Your task to perform on an android device: Open the calendar app, open the side menu, and click the "Day" option Image 0: 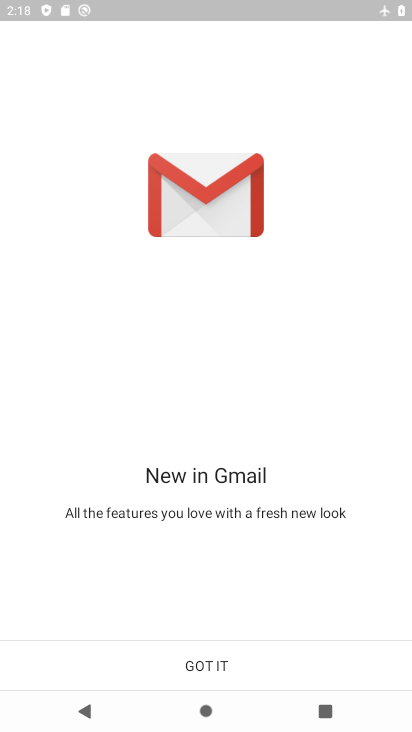
Step 0: press back button
Your task to perform on an android device: Open the calendar app, open the side menu, and click the "Day" option Image 1: 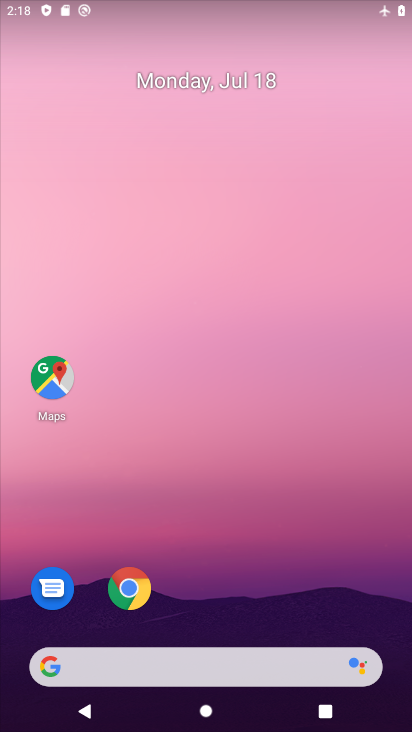
Step 1: drag from (217, 593) to (324, 11)
Your task to perform on an android device: Open the calendar app, open the side menu, and click the "Day" option Image 2: 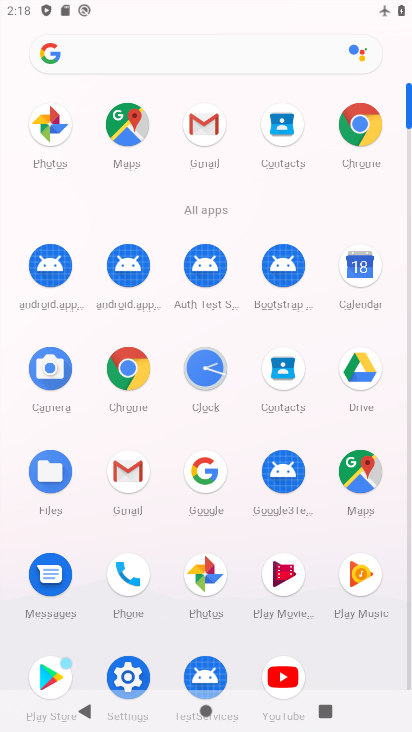
Step 2: click (365, 279)
Your task to perform on an android device: Open the calendar app, open the side menu, and click the "Day" option Image 3: 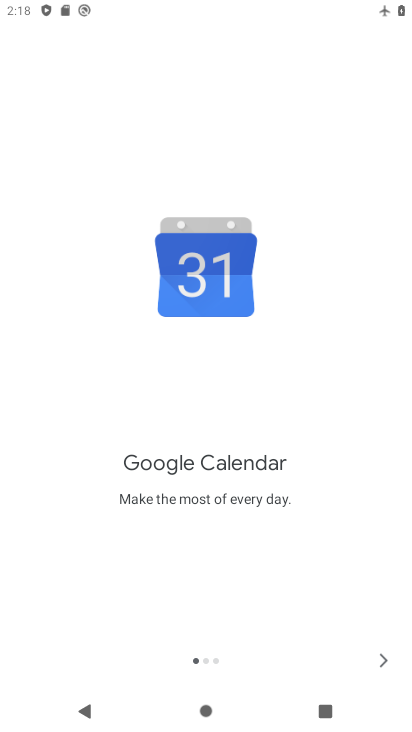
Step 3: click (377, 649)
Your task to perform on an android device: Open the calendar app, open the side menu, and click the "Day" option Image 4: 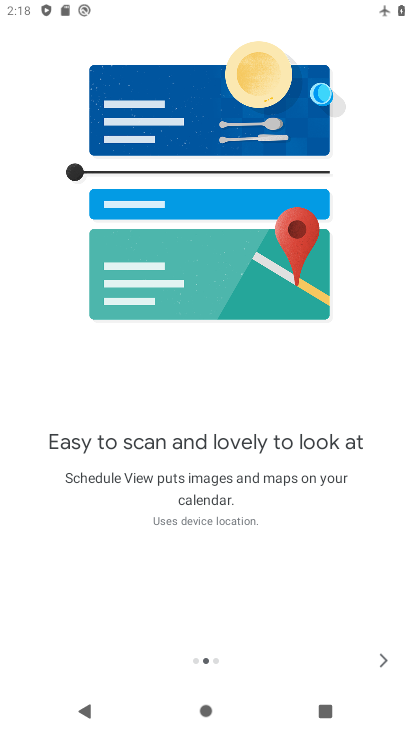
Step 4: click (377, 649)
Your task to perform on an android device: Open the calendar app, open the side menu, and click the "Day" option Image 5: 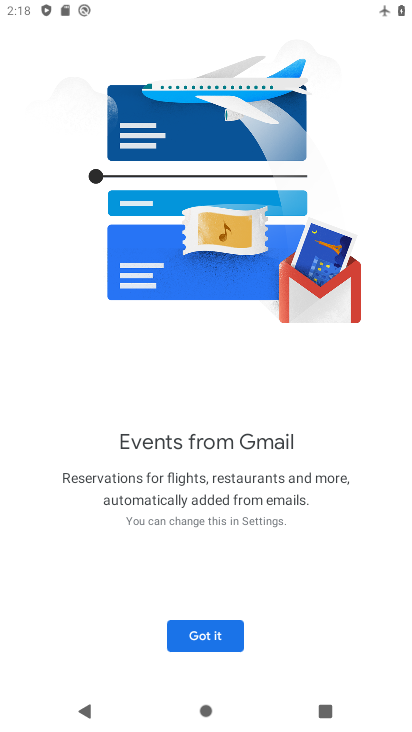
Step 5: click (195, 636)
Your task to perform on an android device: Open the calendar app, open the side menu, and click the "Day" option Image 6: 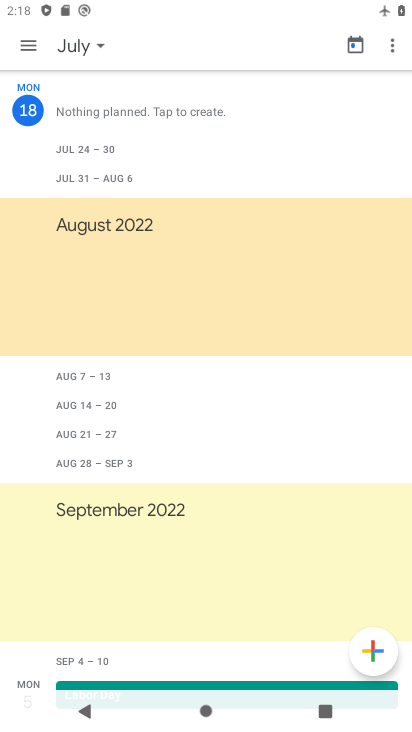
Step 6: click (27, 42)
Your task to perform on an android device: Open the calendar app, open the side menu, and click the "Day" option Image 7: 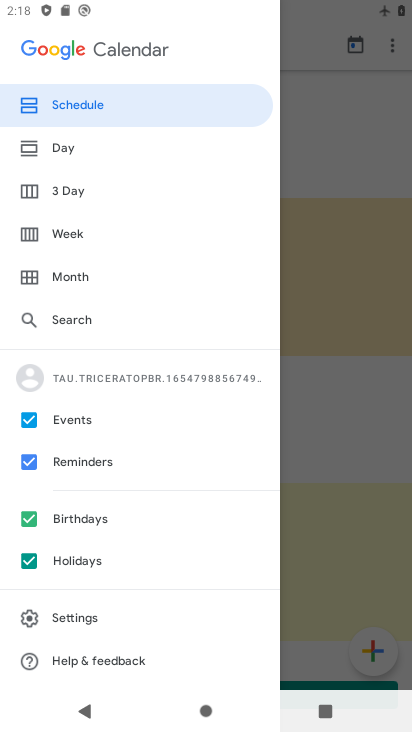
Step 7: click (62, 149)
Your task to perform on an android device: Open the calendar app, open the side menu, and click the "Day" option Image 8: 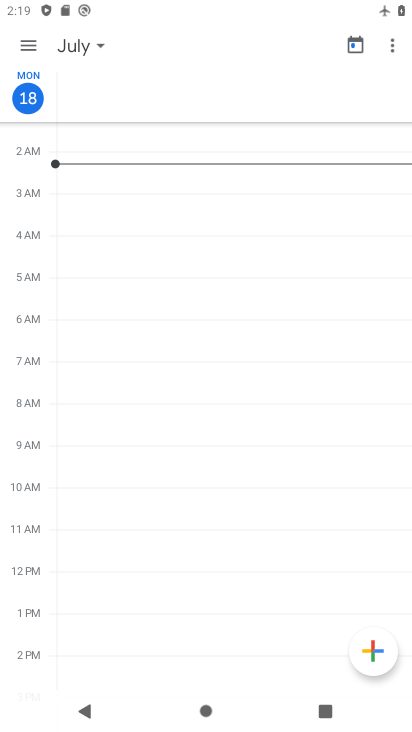
Step 8: task complete